Your task to perform on an android device: toggle pop-ups in chrome Image 0: 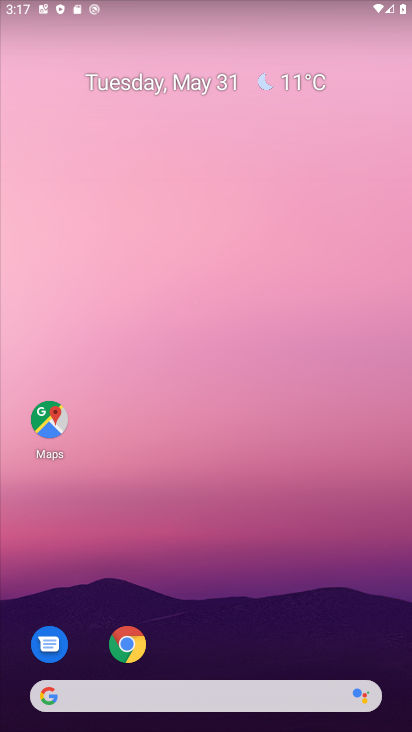
Step 0: click (120, 649)
Your task to perform on an android device: toggle pop-ups in chrome Image 1: 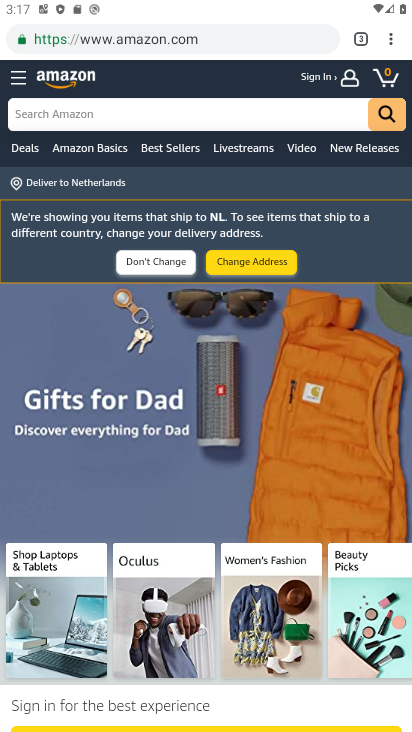
Step 1: click (392, 25)
Your task to perform on an android device: toggle pop-ups in chrome Image 2: 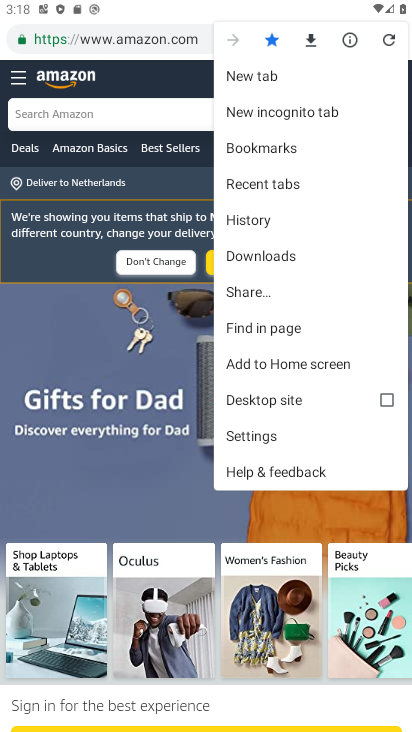
Step 2: click (278, 436)
Your task to perform on an android device: toggle pop-ups in chrome Image 3: 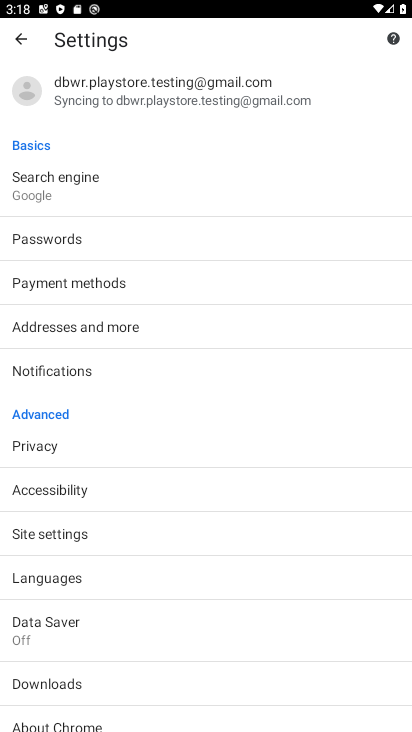
Step 3: click (98, 533)
Your task to perform on an android device: toggle pop-ups in chrome Image 4: 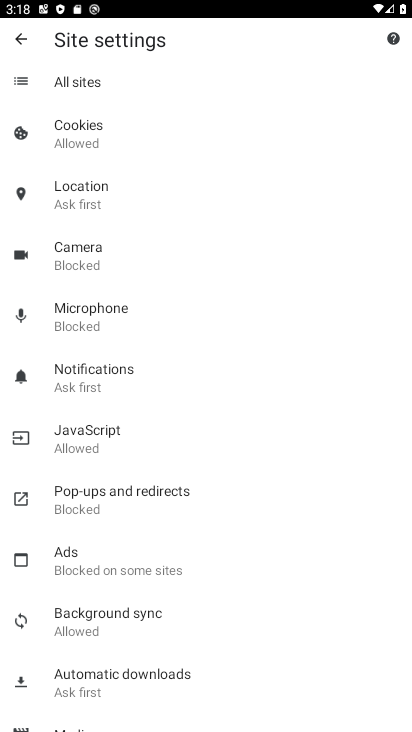
Step 4: click (129, 498)
Your task to perform on an android device: toggle pop-ups in chrome Image 5: 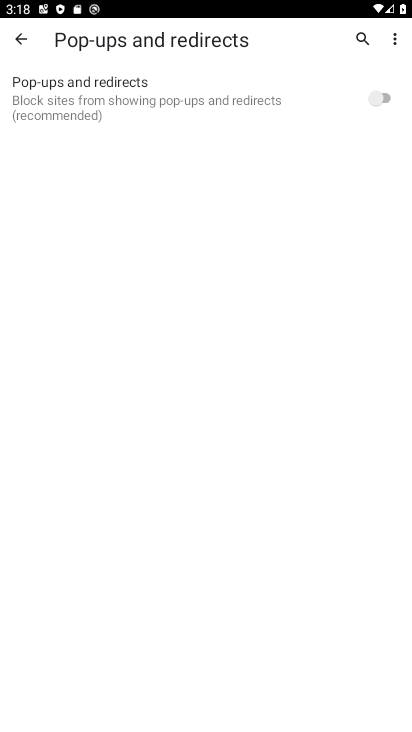
Step 5: click (375, 89)
Your task to perform on an android device: toggle pop-ups in chrome Image 6: 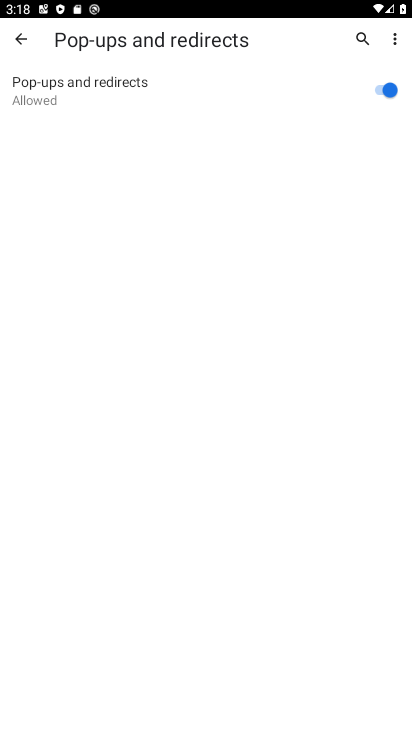
Step 6: task complete